Your task to perform on an android device: Open privacy settings Image 0: 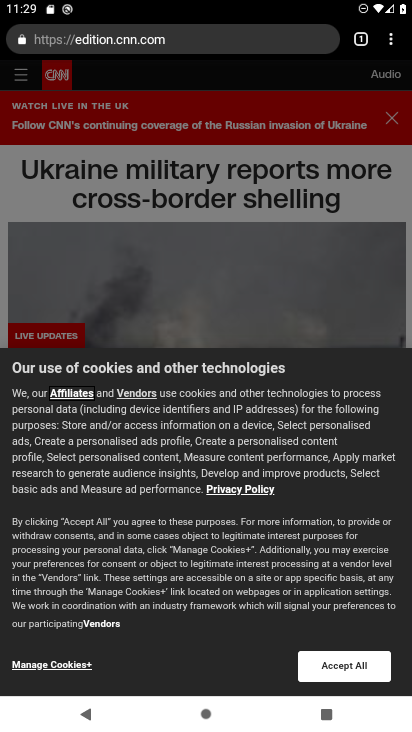
Step 0: press home button
Your task to perform on an android device: Open privacy settings Image 1: 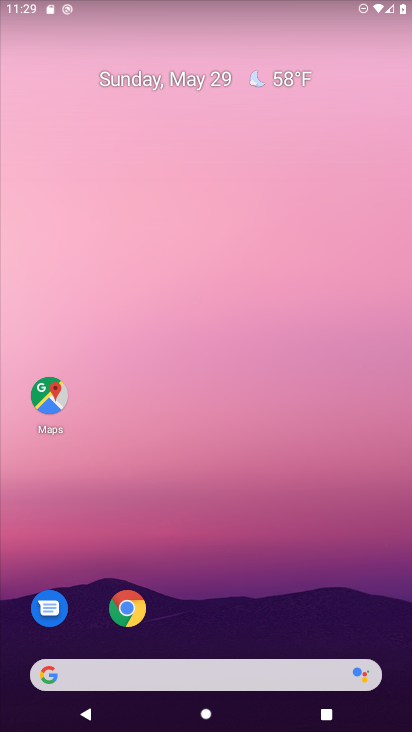
Step 1: drag from (209, 654) to (267, 230)
Your task to perform on an android device: Open privacy settings Image 2: 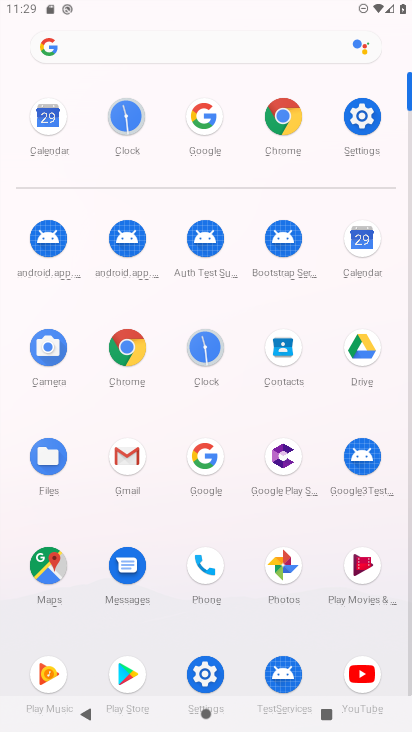
Step 2: click (362, 117)
Your task to perform on an android device: Open privacy settings Image 3: 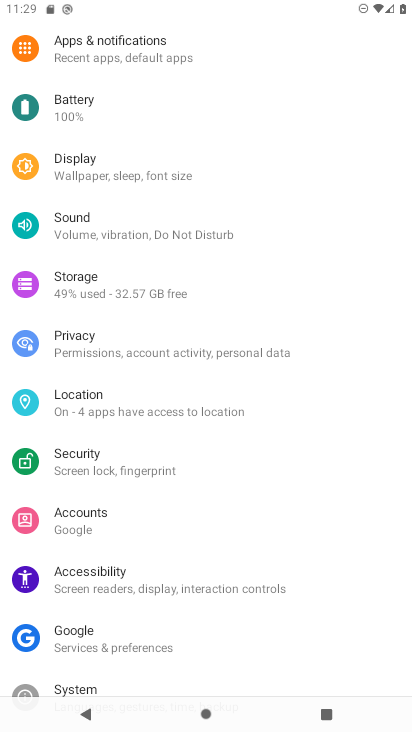
Step 3: click (113, 350)
Your task to perform on an android device: Open privacy settings Image 4: 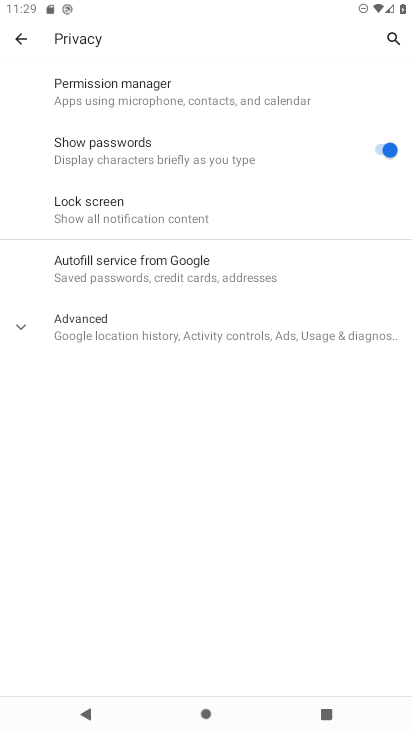
Step 4: click (110, 312)
Your task to perform on an android device: Open privacy settings Image 5: 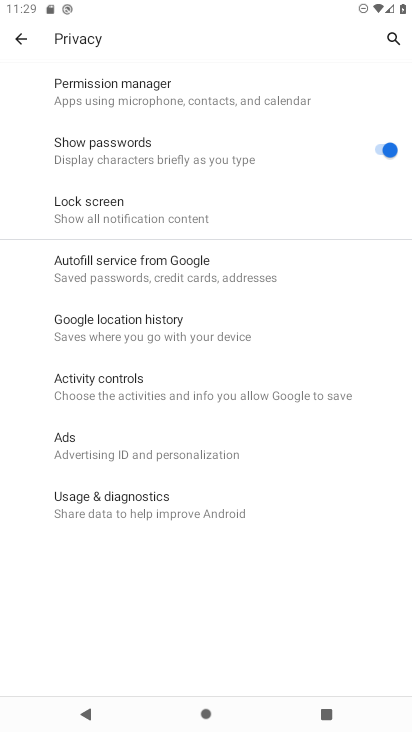
Step 5: task complete